Your task to perform on an android device: turn off translation in the chrome app Image 0: 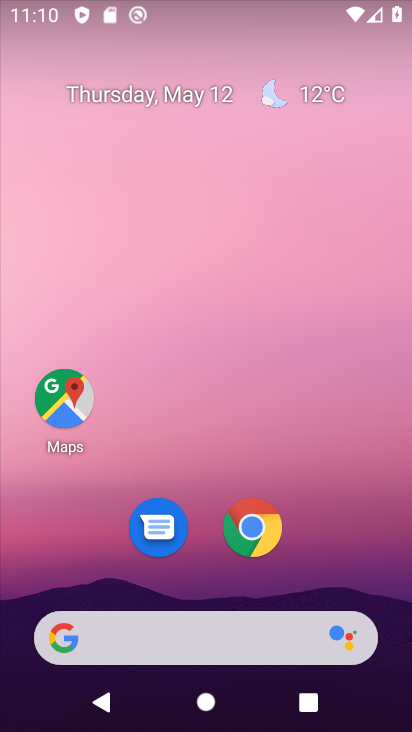
Step 0: click (248, 527)
Your task to perform on an android device: turn off translation in the chrome app Image 1: 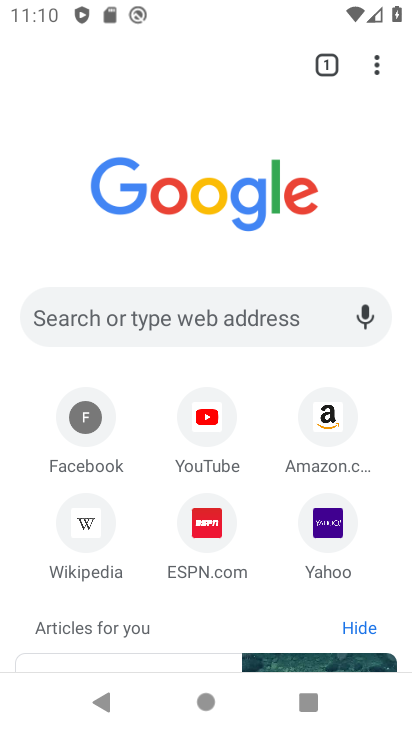
Step 1: click (375, 71)
Your task to perform on an android device: turn off translation in the chrome app Image 2: 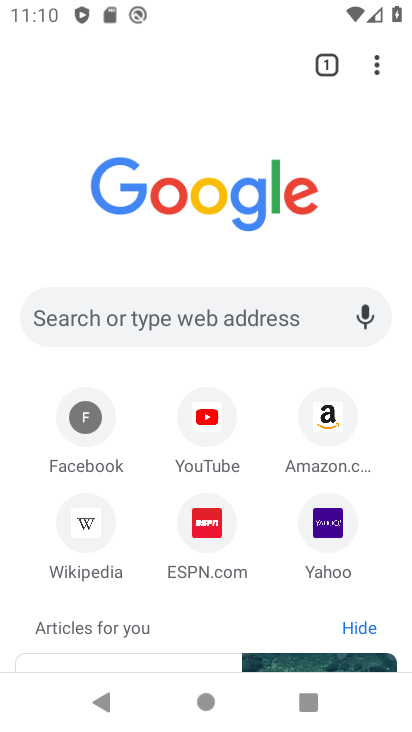
Step 2: click (375, 69)
Your task to perform on an android device: turn off translation in the chrome app Image 3: 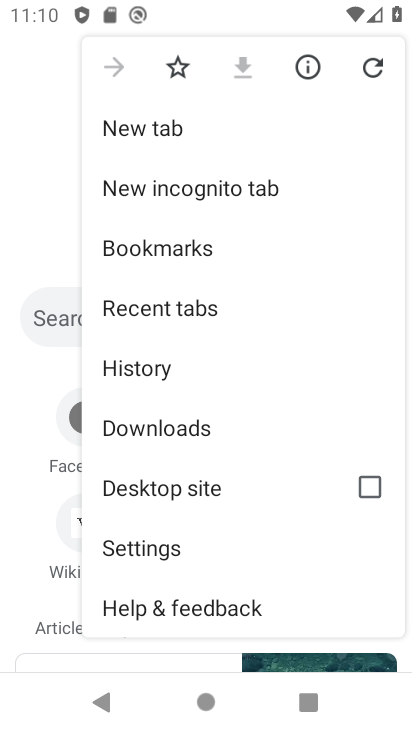
Step 3: click (129, 549)
Your task to perform on an android device: turn off translation in the chrome app Image 4: 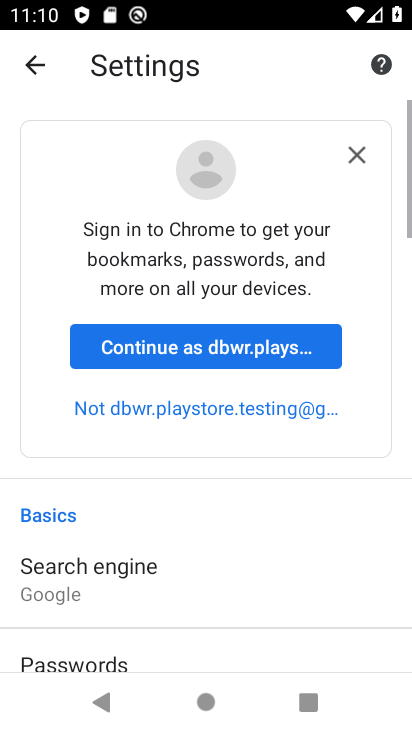
Step 4: drag from (66, 355) to (179, 134)
Your task to perform on an android device: turn off translation in the chrome app Image 5: 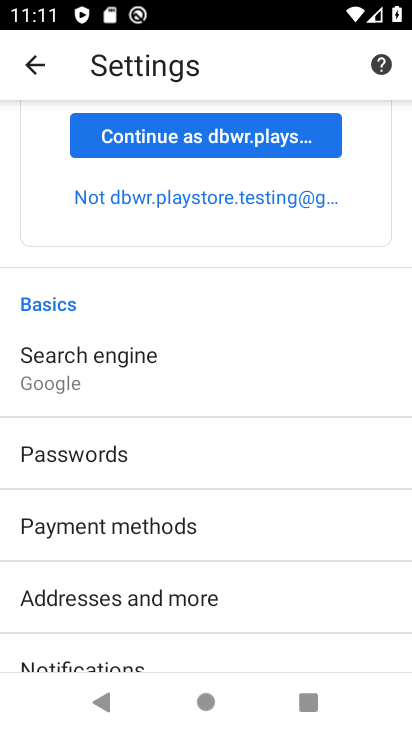
Step 5: drag from (19, 564) to (275, 168)
Your task to perform on an android device: turn off translation in the chrome app Image 6: 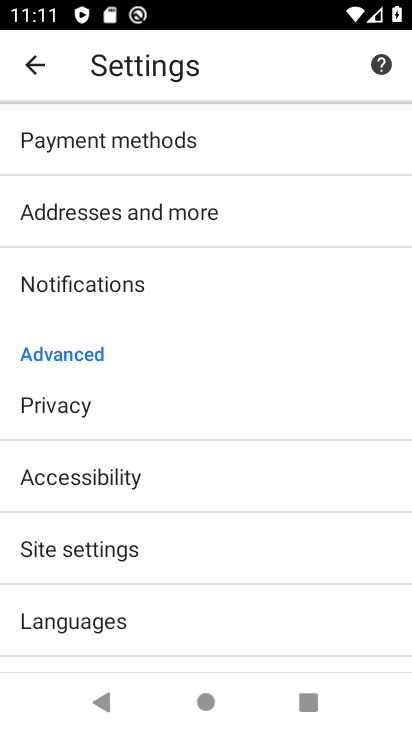
Step 6: click (190, 613)
Your task to perform on an android device: turn off translation in the chrome app Image 7: 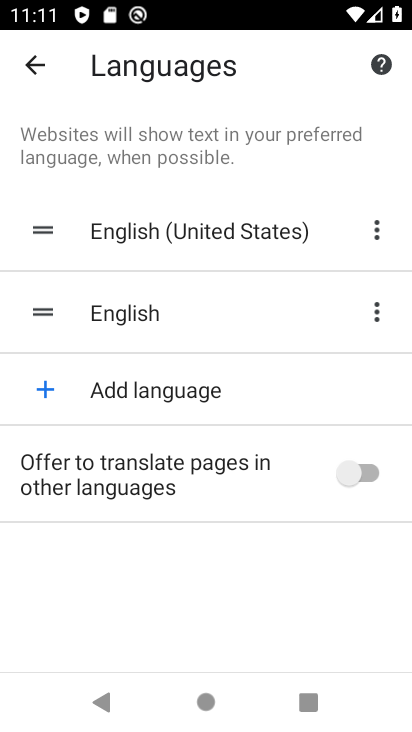
Step 7: task complete